Your task to perform on an android device: See recent photos Image 0: 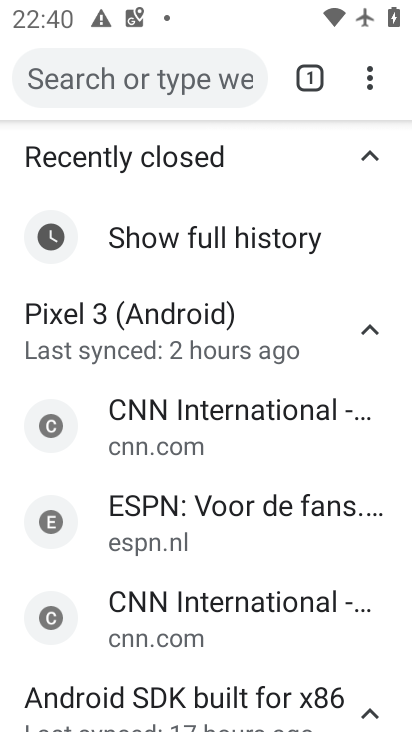
Step 0: press home button
Your task to perform on an android device: See recent photos Image 1: 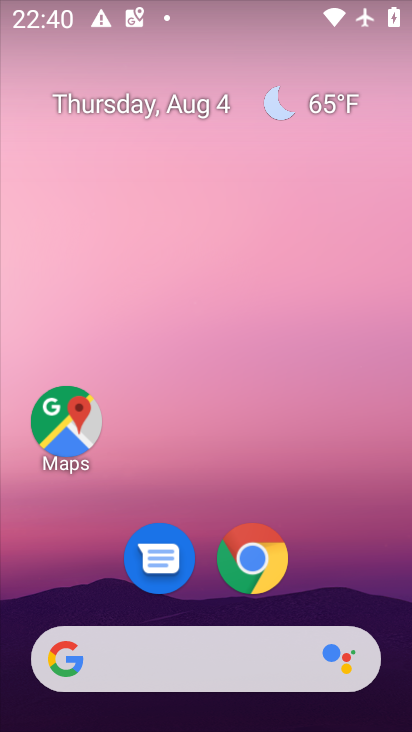
Step 1: drag from (351, 511) to (306, 117)
Your task to perform on an android device: See recent photos Image 2: 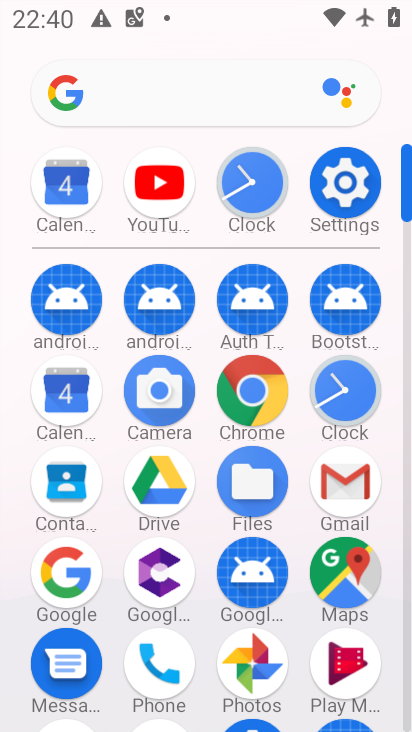
Step 2: click (253, 650)
Your task to perform on an android device: See recent photos Image 3: 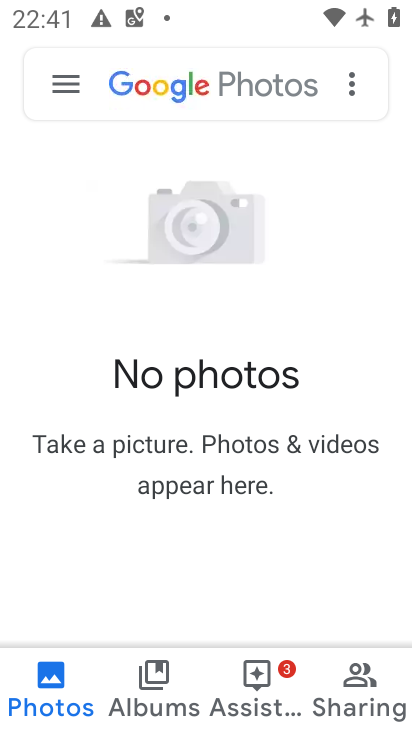
Step 3: task complete